Your task to perform on an android device: Open calendar and show me the fourth week of next month Image 0: 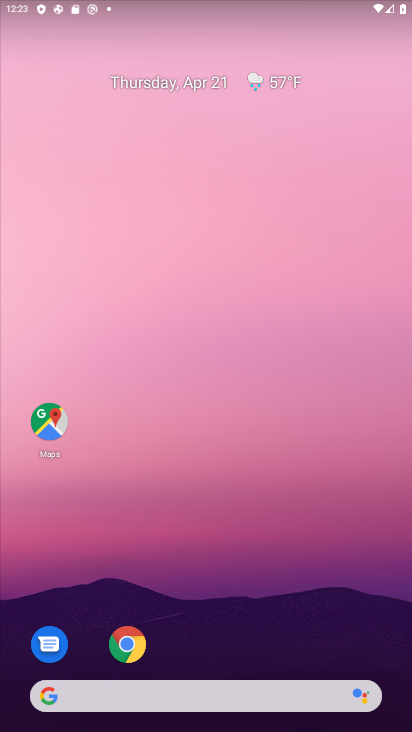
Step 0: drag from (222, 614) to (143, 103)
Your task to perform on an android device: Open calendar and show me the fourth week of next month Image 1: 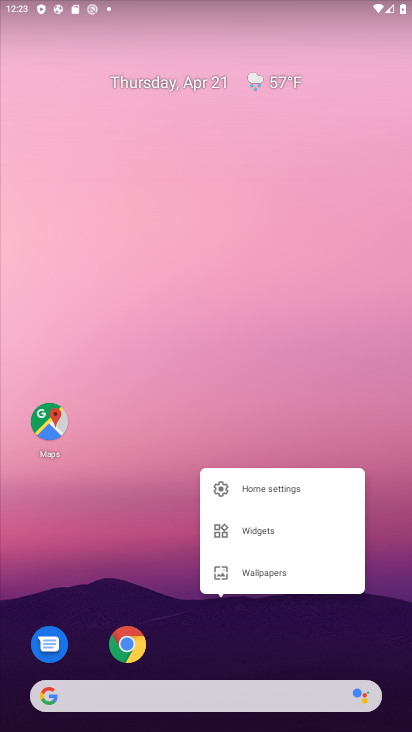
Step 1: drag from (171, 536) to (163, 80)
Your task to perform on an android device: Open calendar and show me the fourth week of next month Image 2: 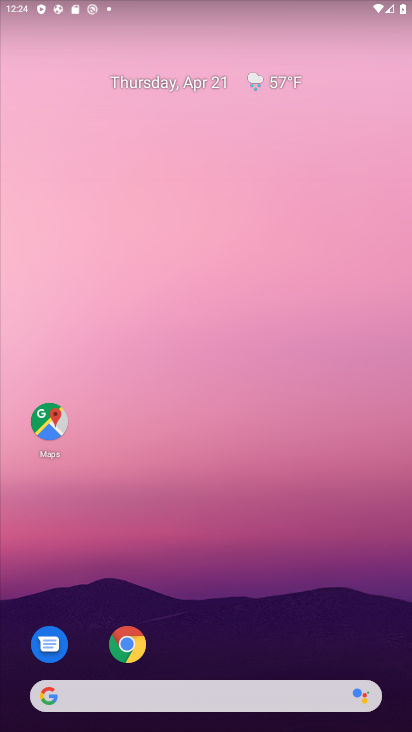
Step 2: drag from (215, 632) to (130, 35)
Your task to perform on an android device: Open calendar and show me the fourth week of next month Image 3: 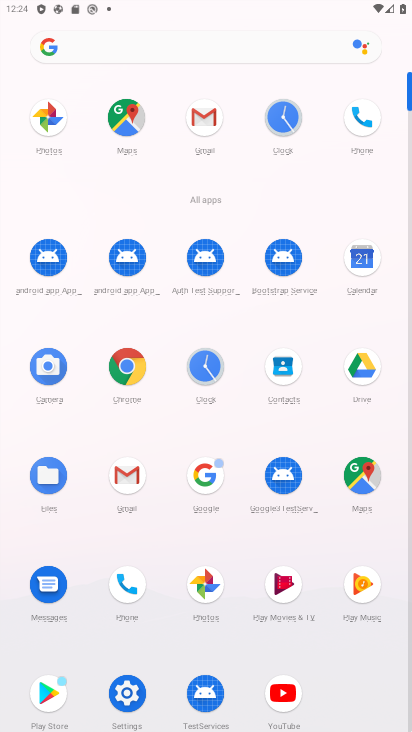
Step 3: click (363, 264)
Your task to perform on an android device: Open calendar and show me the fourth week of next month Image 4: 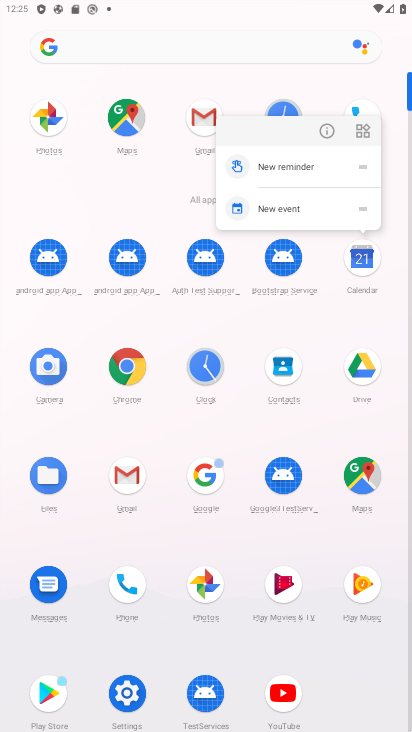
Step 4: click (368, 268)
Your task to perform on an android device: Open calendar and show me the fourth week of next month Image 5: 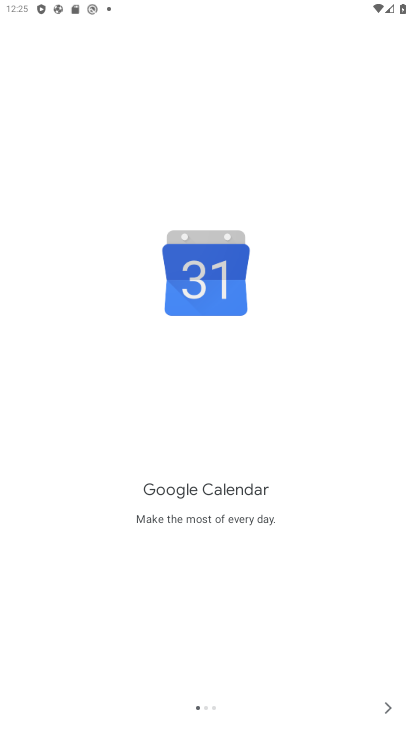
Step 5: click (388, 707)
Your task to perform on an android device: Open calendar and show me the fourth week of next month Image 6: 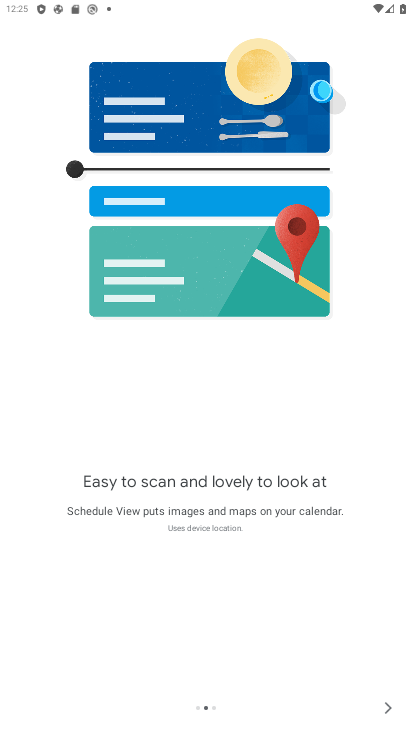
Step 6: click (390, 706)
Your task to perform on an android device: Open calendar and show me the fourth week of next month Image 7: 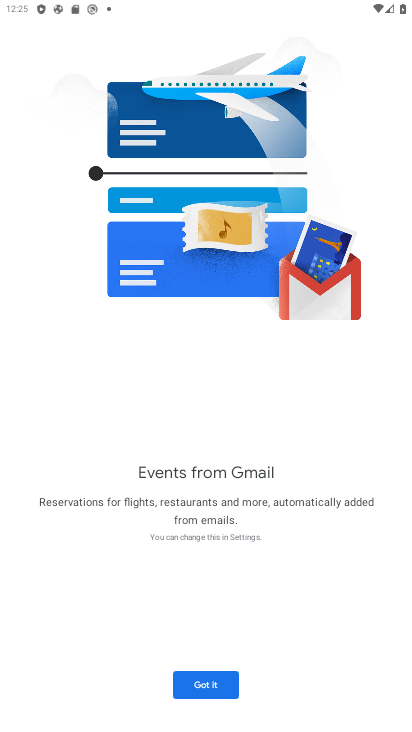
Step 7: click (185, 685)
Your task to perform on an android device: Open calendar and show me the fourth week of next month Image 8: 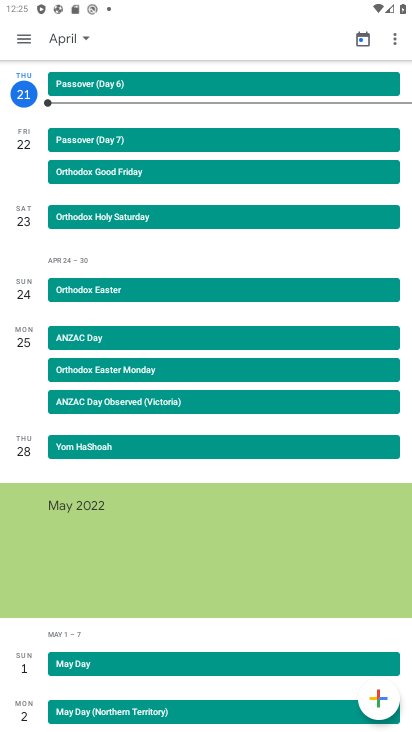
Step 8: click (16, 47)
Your task to perform on an android device: Open calendar and show me the fourth week of next month Image 9: 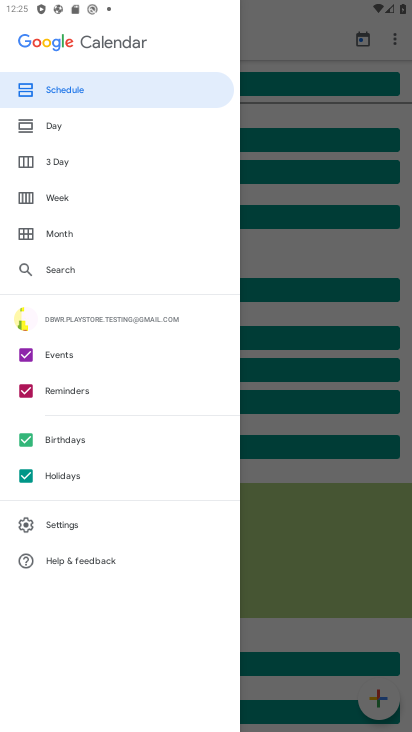
Step 9: click (70, 188)
Your task to perform on an android device: Open calendar and show me the fourth week of next month Image 10: 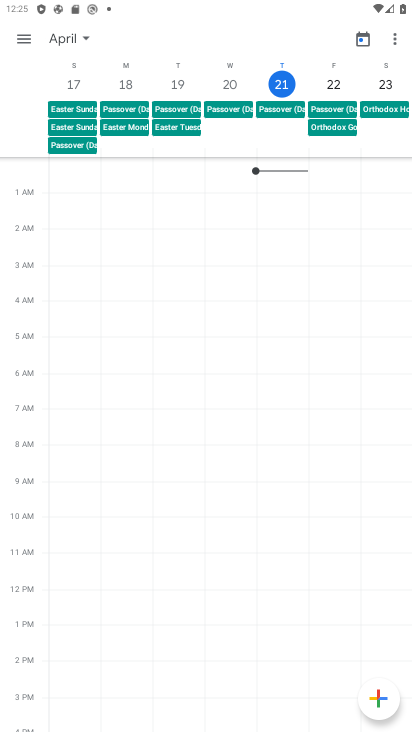
Step 10: task complete